Your task to perform on an android device: Search for seafood restaurants on Google Maps Image 0: 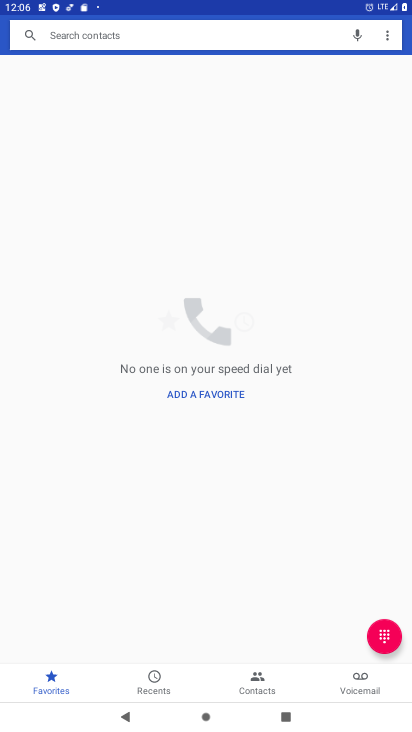
Step 0: press home button
Your task to perform on an android device: Search for seafood restaurants on Google Maps Image 1: 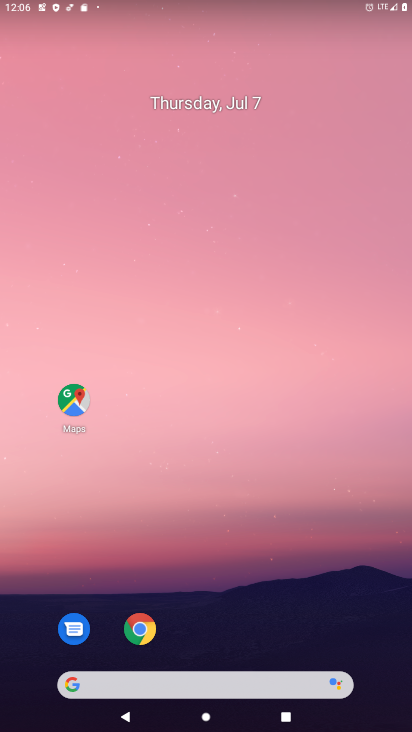
Step 1: click (73, 400)
Your task to perform on an android device: Search for seafood restaurants on Google Maps Image 2: 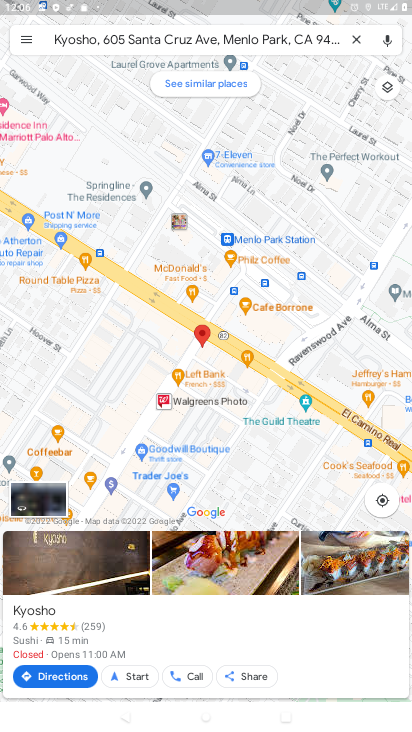
Step 2: click (356, 39)
Your task to perform on an android device: Search for seafood restaurants on Google Maps Image 3: 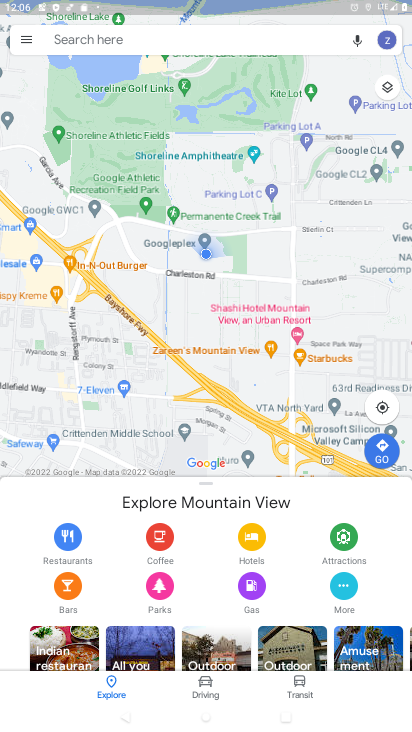
Step 3: click (275, 40)
Your task to perform on an android device: Search for seafood restaurants on Google Maps Image 4: 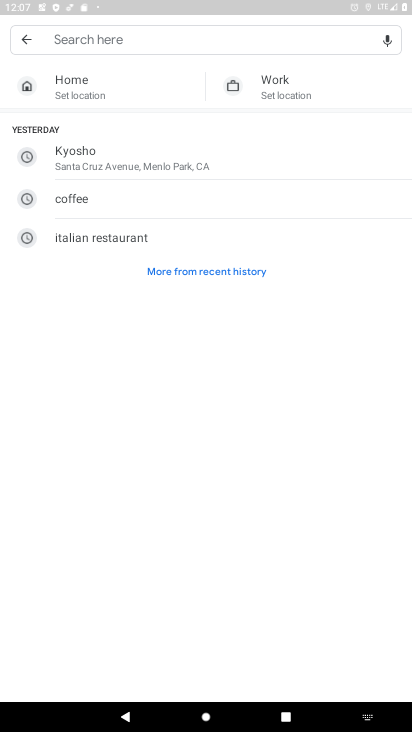
Step 4: type "seafood restaurants"
Your task to perform on an android device: Search for seafood restaurants on Google Maps Image 5: 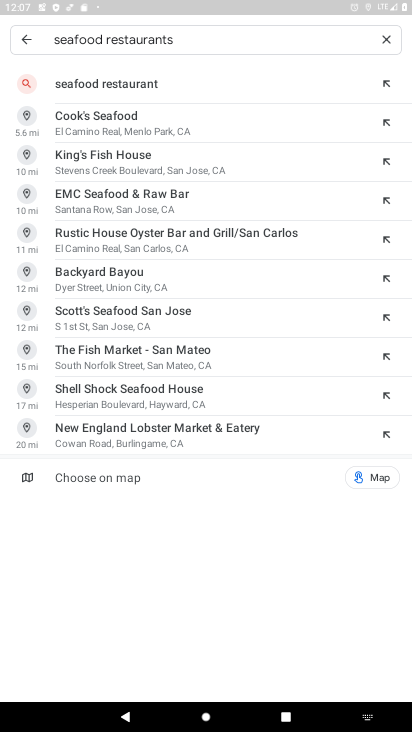
Step 5: click (141, 82)
Your task to perform on an android device: Search for seafood restaurants on Google Maps Image 6: 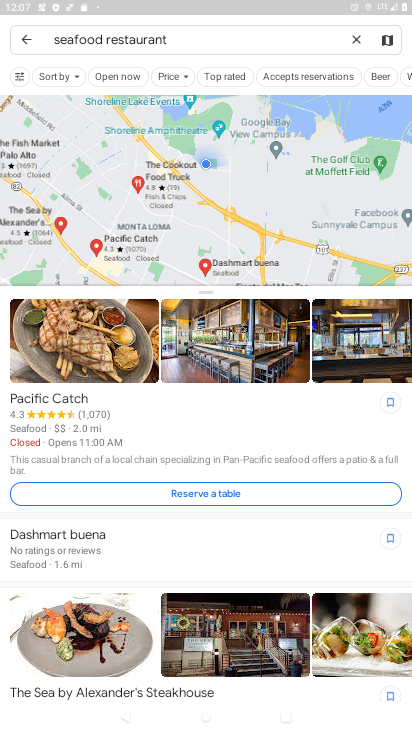
Step 6: task complete